Your task to perform on an android device: Go to Reddit.com Image 0: 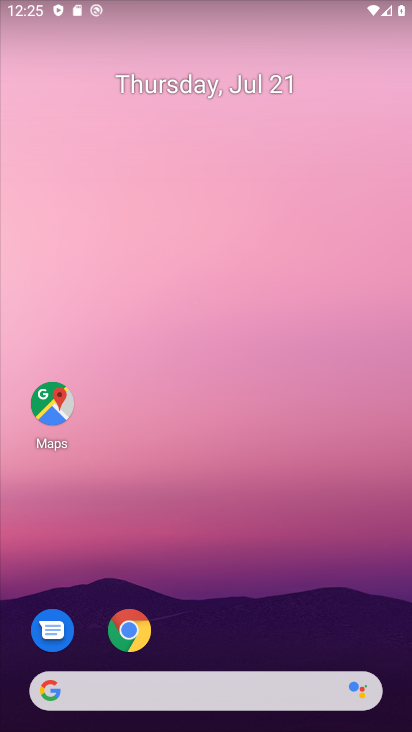
Step 0: drag from (195, 640) to (211, 145)
Your task to perform on an android device: Go to Reddit.com Image 1: 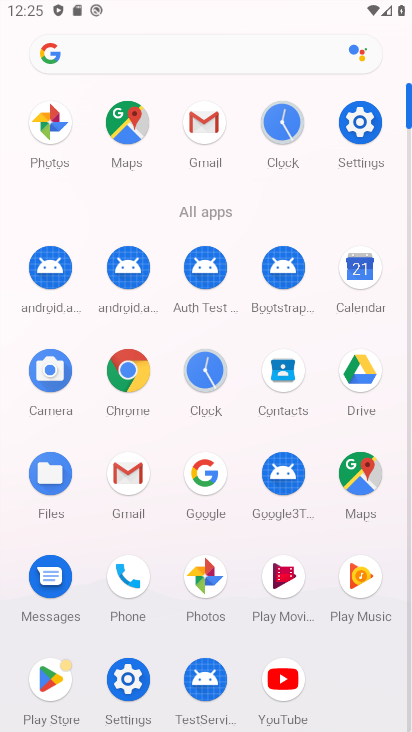
Step 1: click (208, 481)
Your task to perform on an android device: Go to Reddit.com Image 2: 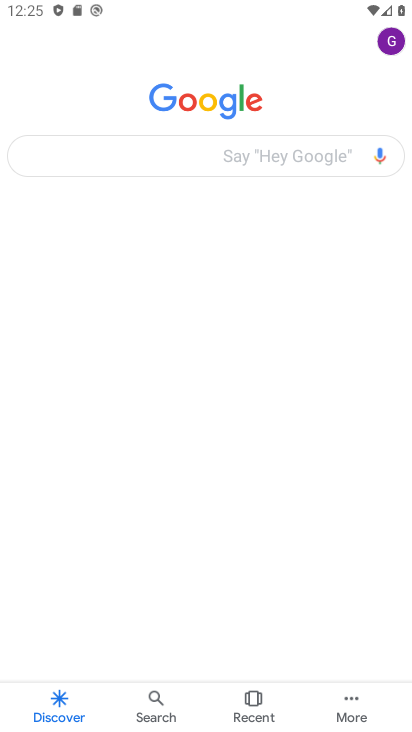
Step 2: click (162, 165)
Your task to perform on an android device: Go to Reddit.com Image 3: 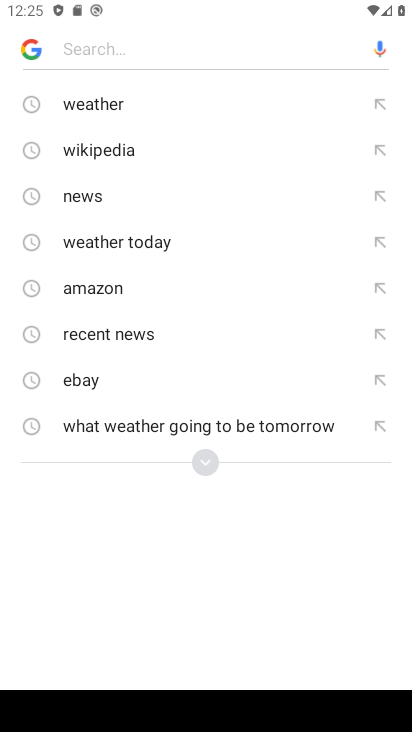
Step 3: type "reddit.com"
Your task to perform on an android device: Go to Reddit.com Image 4: 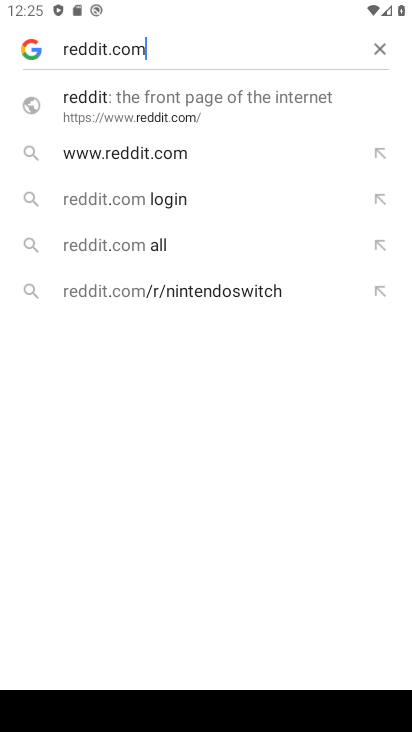
Step 4: click (130, 100)
Your task to perform on an android device: Go to Reddit.com Image 5: 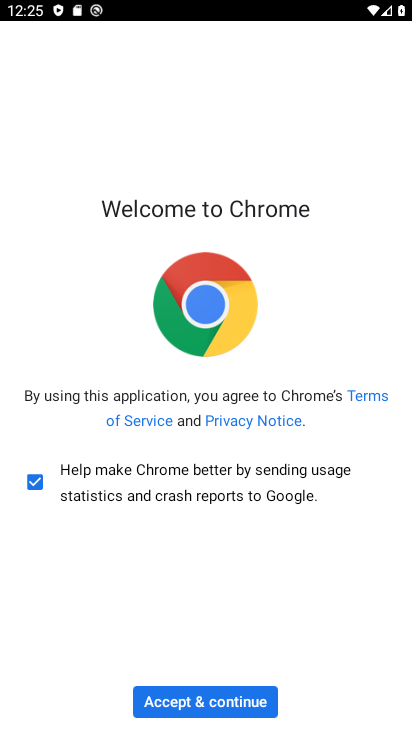
Step 5: click (207, 697)
Your task to perform on an android device: Go to Reddit.com Image 6: 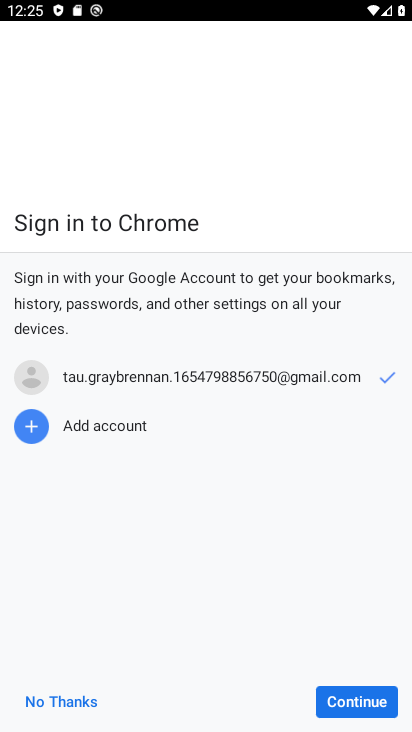
Step 6: click (346, 706)
Your task to perform on an android device: Go to Reddit.com Image 7: 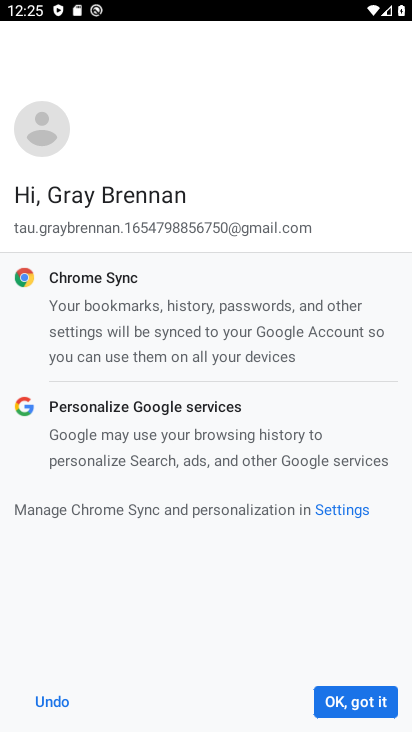
Step 7: click (345, 706)
Your task to perform on an android device: Go to Reddit.com Image 8: 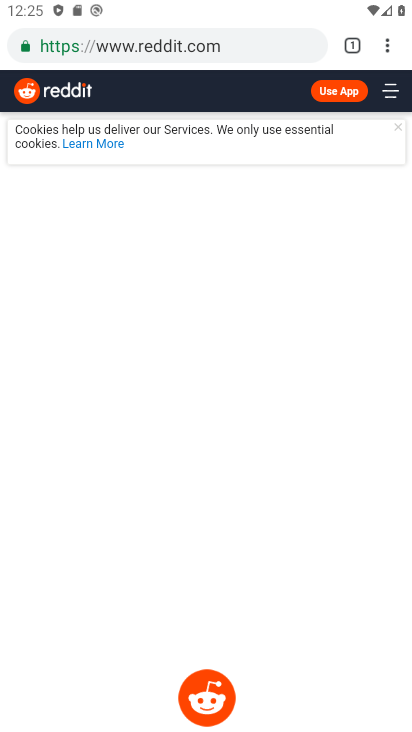
Step 8: task complete